Your task to perform on an android device: Open the Play Movies app and select the watchlist tab. Image 0: 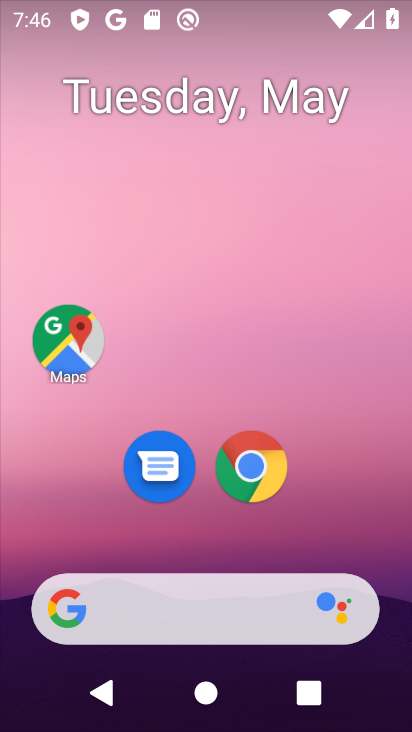
Step 0: drag from (214, 570) to (320, 10)
Your task to perform on an android device: Open the Play Movies app and select the watchlist tab. Image 1: 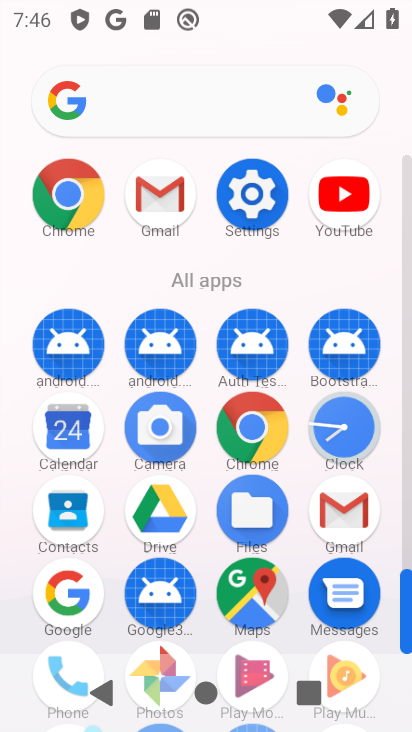
Step 1: drag from (107, 624) to (160, 109)
Your task to perform on an android device: Open the Play Movies app and select the watchlist tab. Image 2: 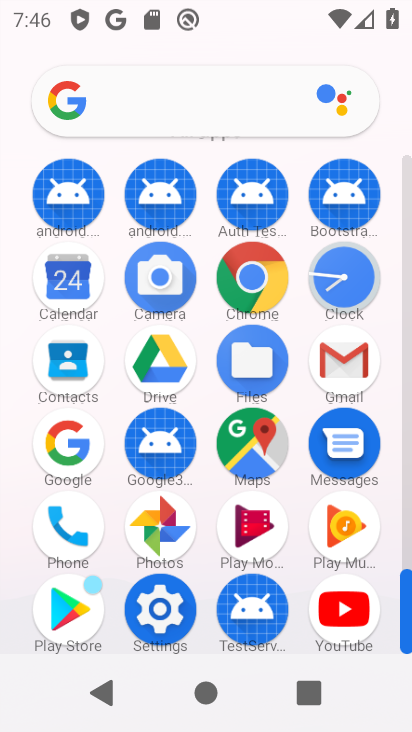
Step 2: click (77, 621)
Your task to perform on an android device: Open the Play Movies app and select the watchlist tab. Image 3: 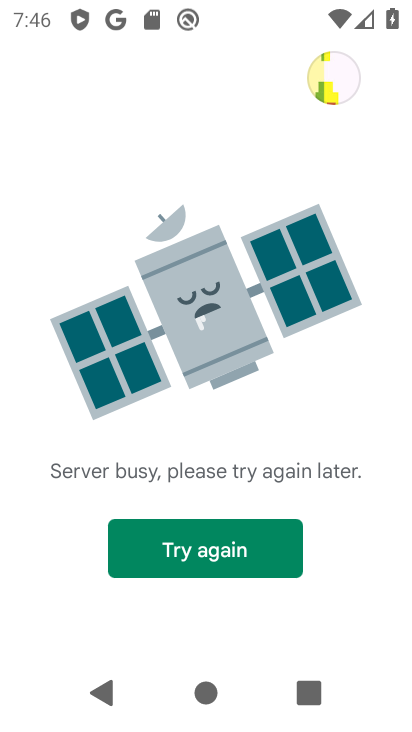
Step 3: press home button
Your task to perform on an android device: Open the Play Movies app and select the watchlist tab. Image 4: 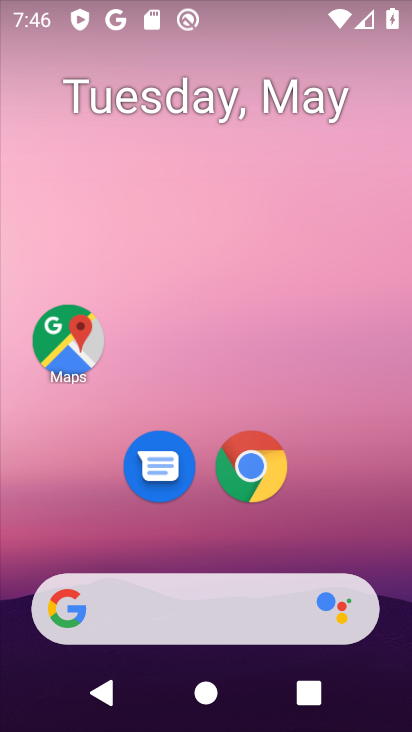
Step 4: drag from (255, 562) to (270, 57)
Your task to perform on an android device: Open the Play Movies app and select the watchlist tab. Image 5: 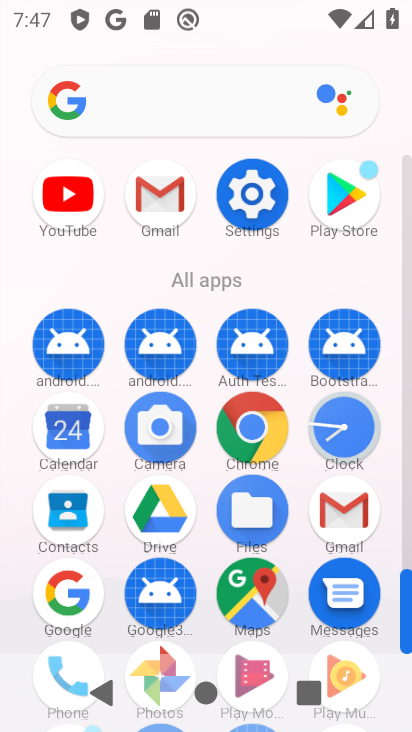
Step 5: drag from (298, 611) to (295, 211)
Your task to perform on an android device: Open the Play Movies app and select the watchlist tab. Image 6: 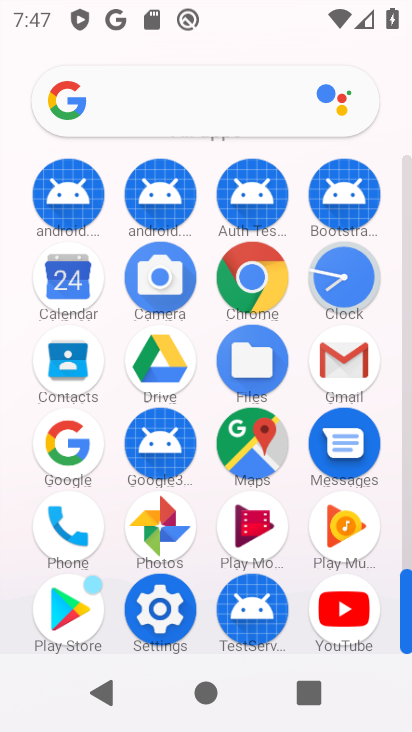
Step 6: click (268, 528)
Your task to perform on an android device: Open the Play Movies app and select the watchlist tab. Image 7: 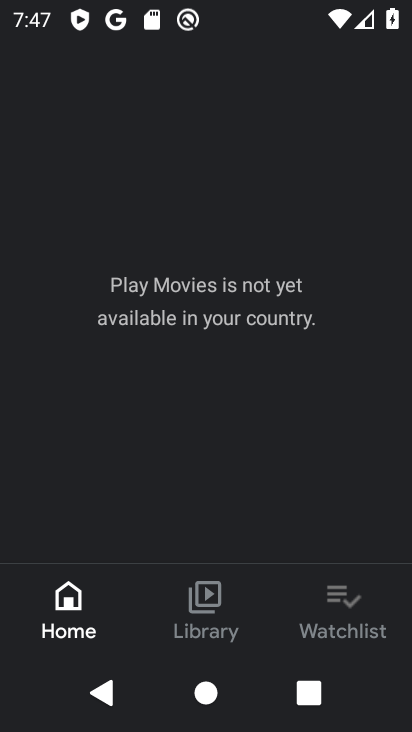
Step 7: click (331, 615)
Your task to perform on an android device: Open the Play Movies app and select the watchlist tab. Image 8: 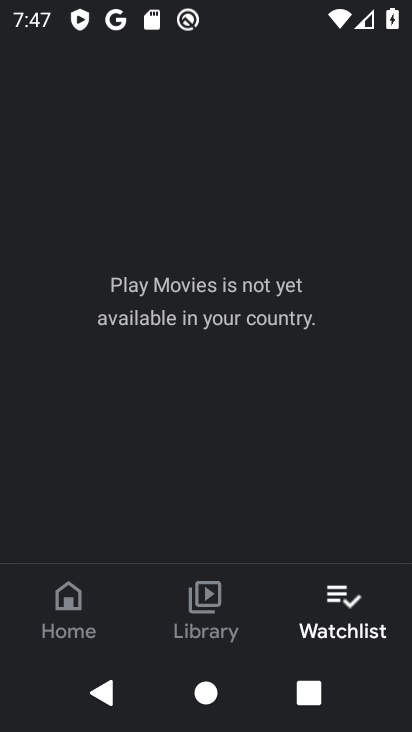
Step 8: task complete